Your task to perform on an android device: Do I have any events today? Image 0: 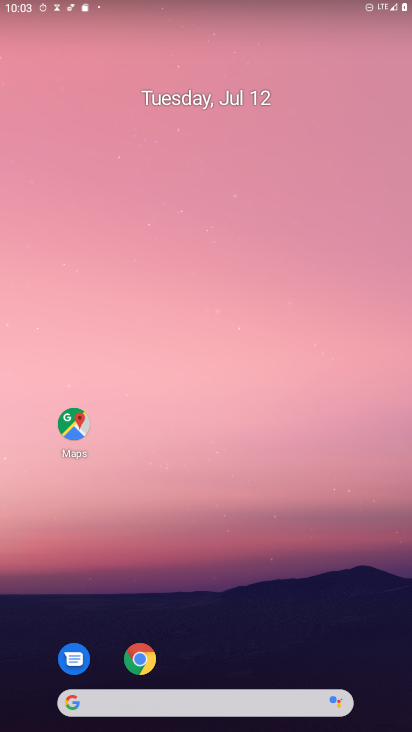
Step 0: drag from (181, 709) to (183, 282)
Your task to perform on an android device: Do I have any events today? Image 1: 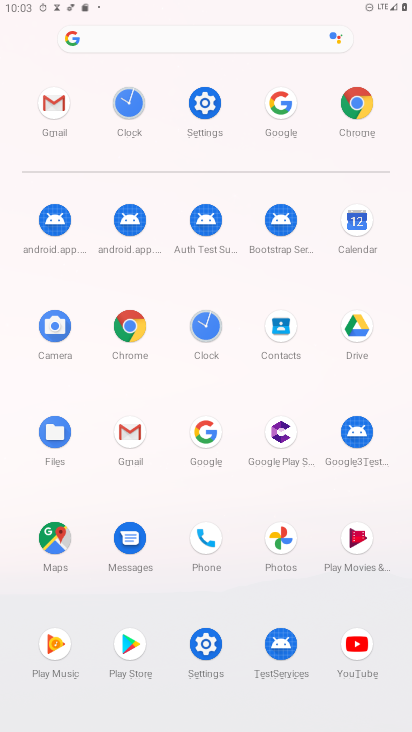
Step 1: click (359, 221)
Your task to perform on an android device: Do I have any events today? Image 2: 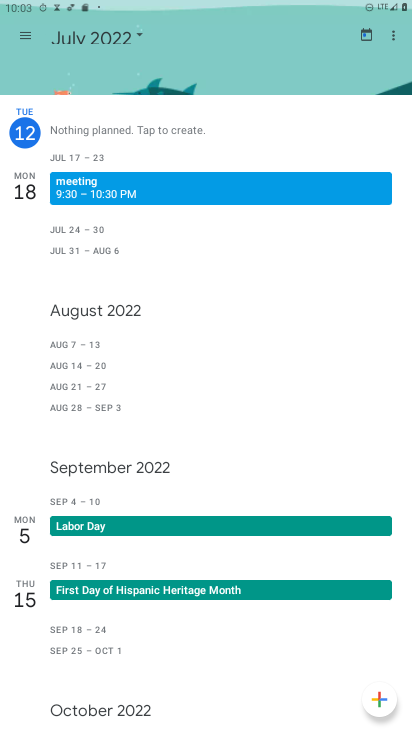
Step 2: click (128, 34)
Your task to perform on an android device: Do I have any events today? Image 3: 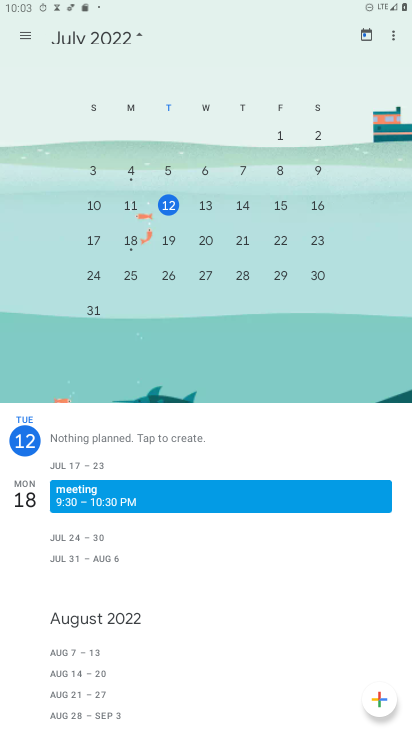
Step 3: click (209, 209)
Your task to perform on an android device: Do I have any events today? Image 4: 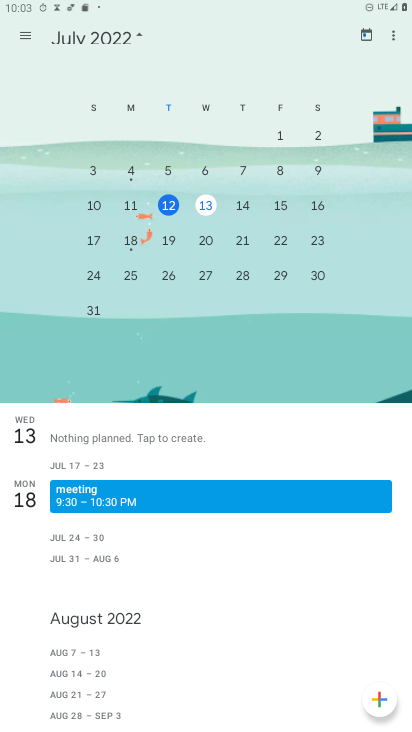
Step 4: click (26, 38)
Your task to perform on an android device: Do I have any events today? Image 5: 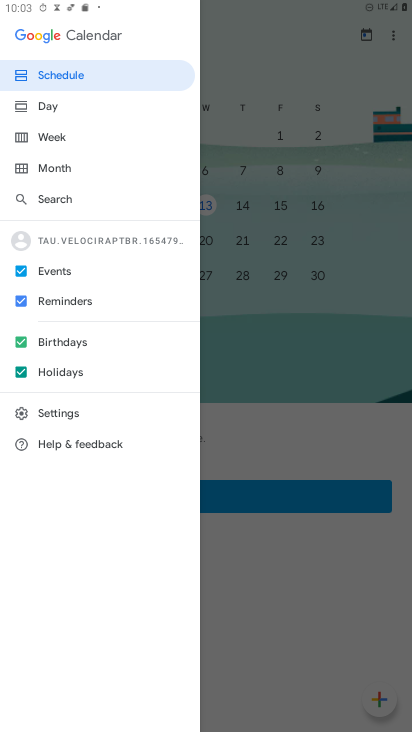
Step 5: click (41, 73)
Your task to perform on an android device: Do I have any events today? Image 6: 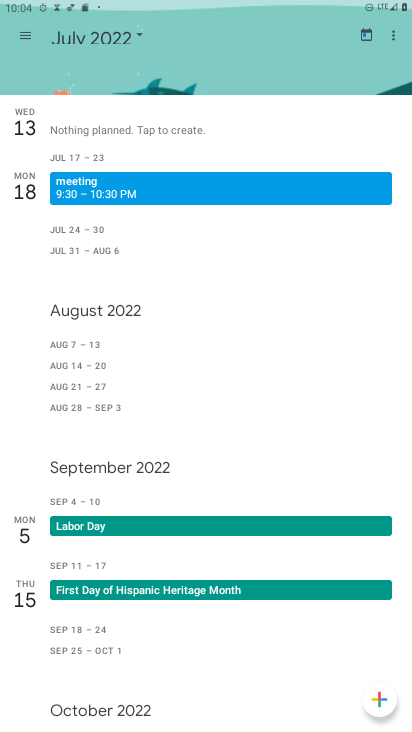
Step 6: task complete